Your task to perform on an android device: Open the phone app and click the voicemail tab. Image 0: 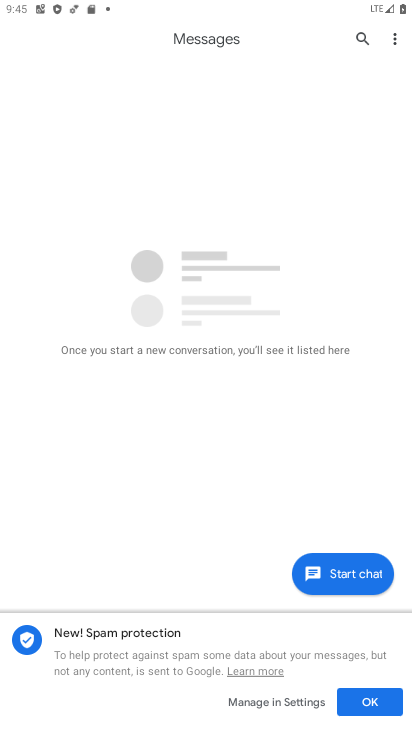
Step 0: press home button
Your task to perform on an android device: Open the phone app and click the voicemail tab. Image 1: 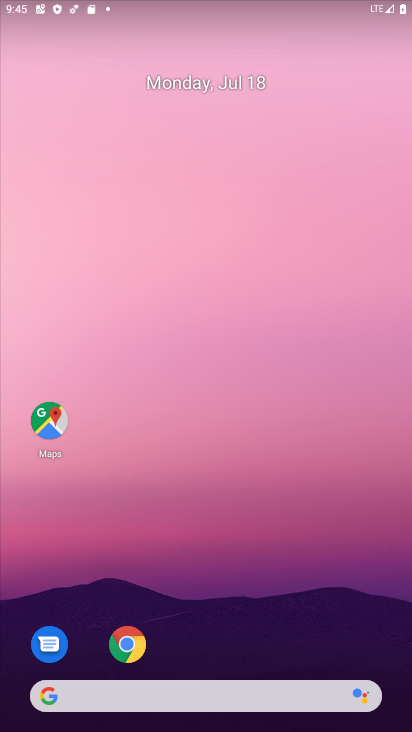
Step 1: drag from (336, 614) to (363, 153)
Your task to perform on an android device: Open the phone app and click the voicemail tab. Image 2: 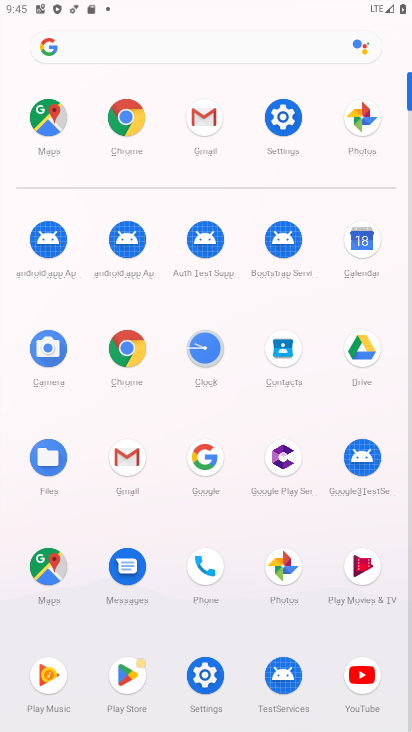
Step 2: click (206, 566)
Your task to perform on an android device: Open the phone app and click the voicemail tab. Image 3: 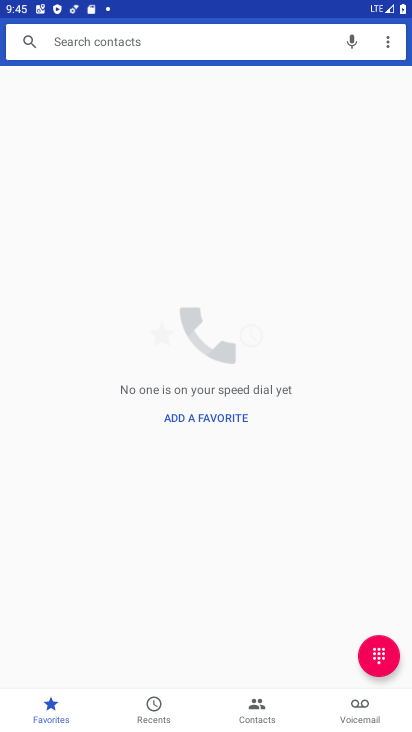
Step 3: click (355, 706)
Your task to perform on an android device: Open the phone app and click the voicemail tab. Image 4: 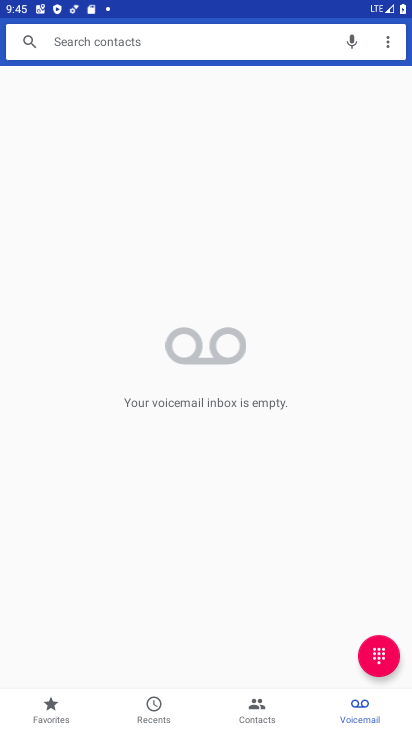
Step 4: task complete